Your task to perform on an android device: Open sound settings Image 0: 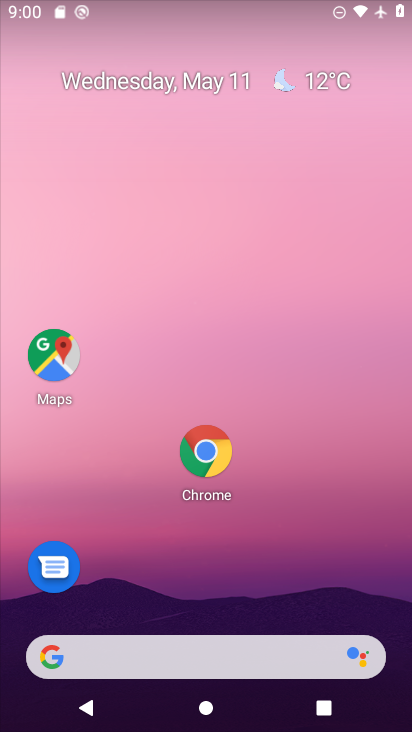
Step 0: press home button
Your task to perform on an android device: Open sound settings Image 1: 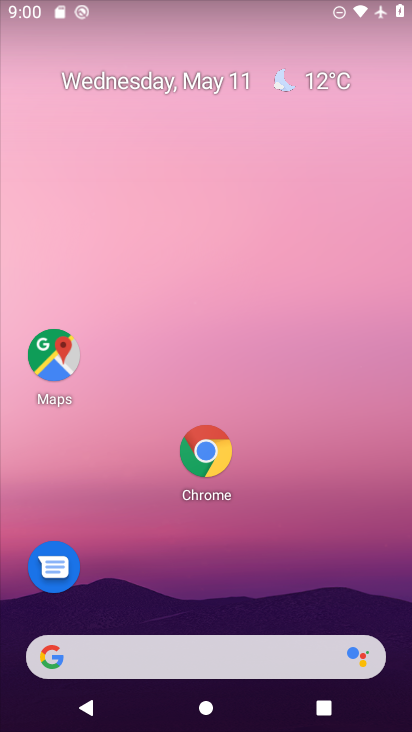
Step 1: drag from (169, 668) to (295, 232)
Your task to perform on an android device: Open sound settings Image 2: 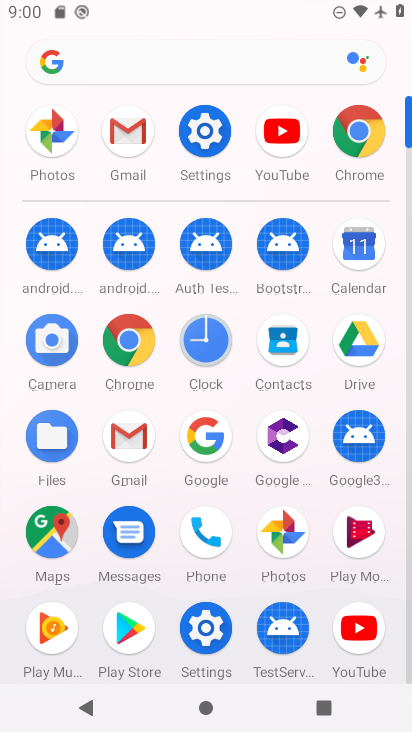
Step 2: click (202, 134)
Your task to perform on an android device: Open sound settings Image 3: 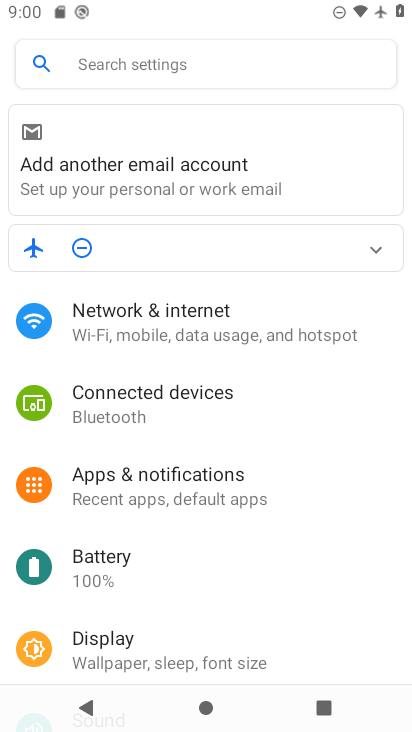
Step 3: drag from (173, 568) to (280, 298)
Your task to perform on an android device: Open sound settings Image 4: 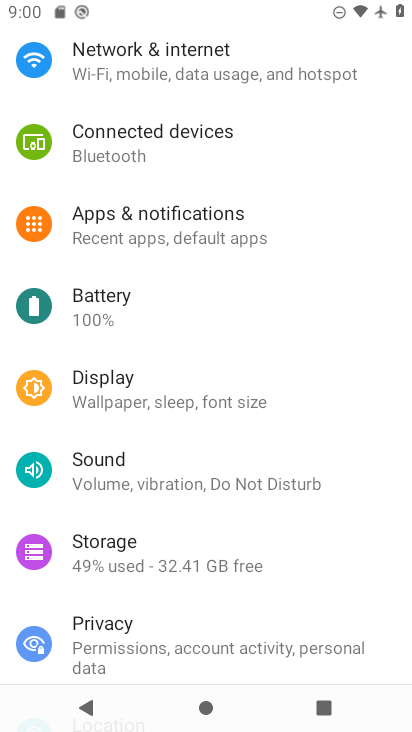
Step 4: click (120, 477)
Your task to perform on an android device: Open sound settings Image 5: 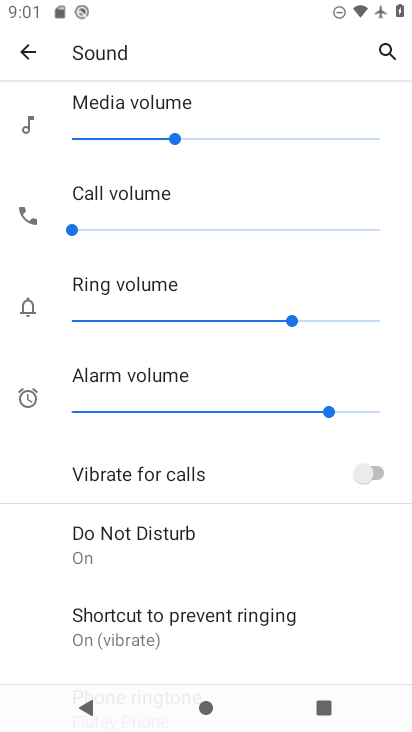
Step 5: task complete